Your task to perform on an android device: open app "Spotify" (install if not already installed) and go to login screen Image 0: 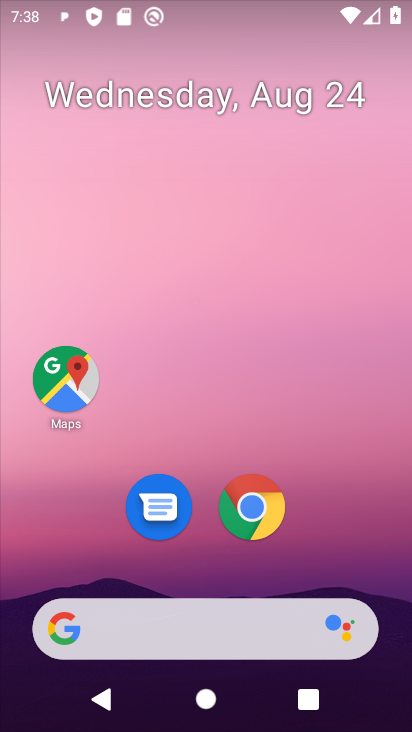
Step 0: drag from (369, 565) to (357, 138)
Your task to perform on an android device: open app "Spotify" (install if not already installed) and go to login screen Image 1: 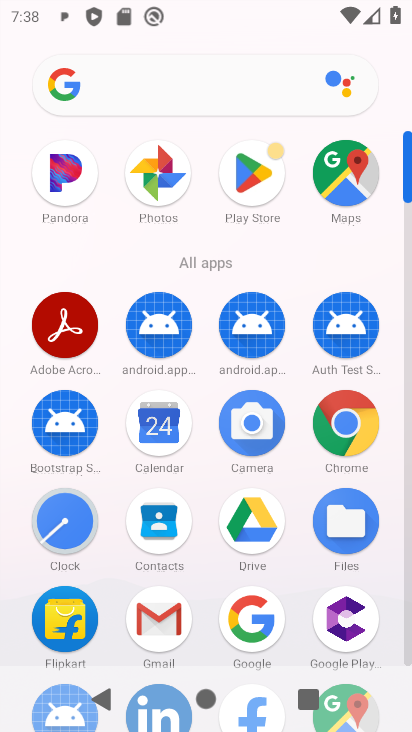
Step 1: click (260, 178)
Your task to perform on an android device: open app "Spotify" (install if not already installed) and go to login screen Image 2: 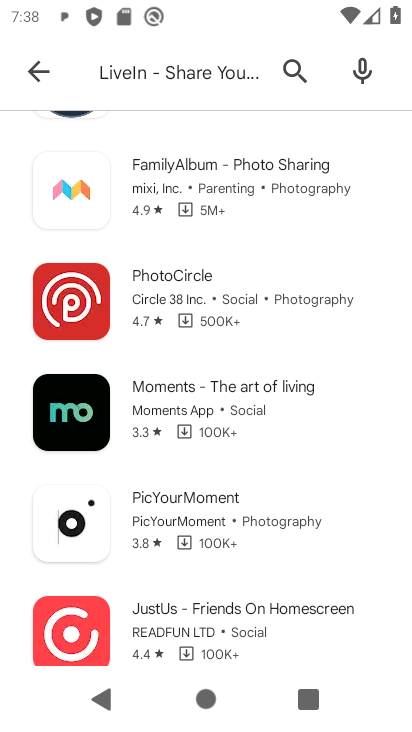
Step 2: press back button
Your task to perform on an android device: open app "Spotify" (install if not already installed) and go to login screen Image 3: 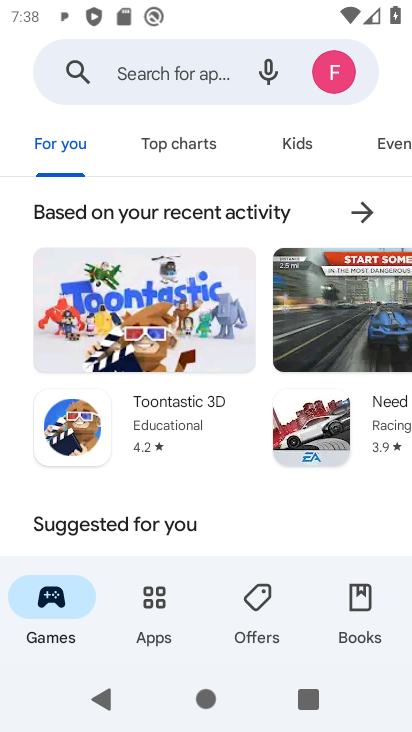
Step 3: click (185, 74)
Your task to perform on an android device: open app "Spotify" (install if not already installed) and go to login screen Image 4: 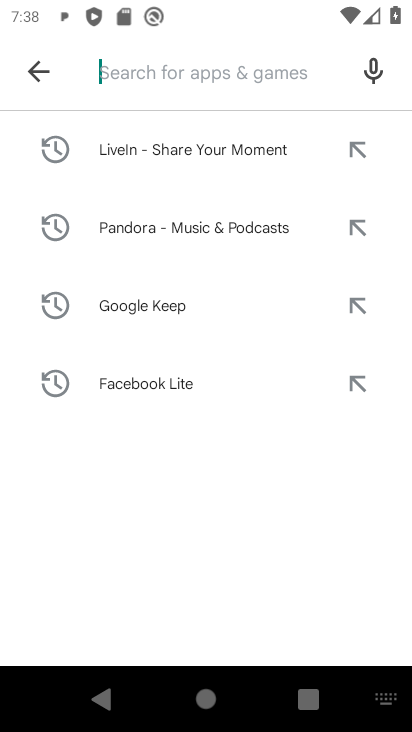
Step 4: type "Spotify"
Your task to perform on an android device: open app "Spotify" (install if not already installed) and go to login screen Image 5: 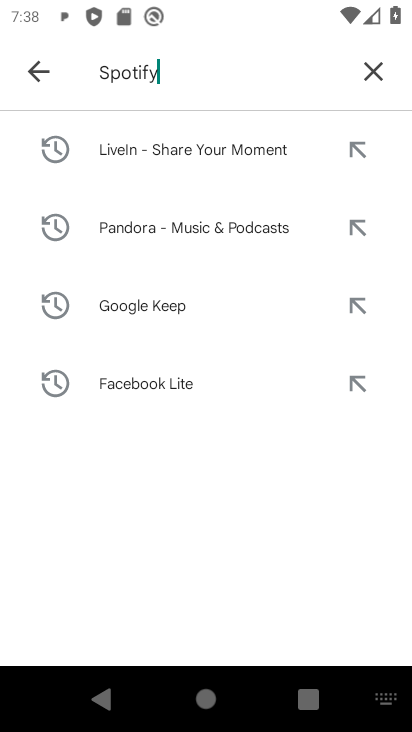
Step 5: press enter
Your task to perform on an android device: open app "Spotify" (install if not already installed) and go to login screen Image 6: 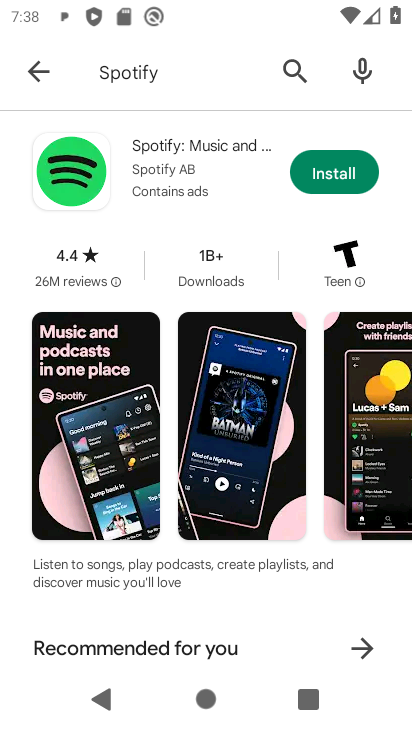
Step 6: click (330, 168)
Your task to perform on an android device: open app "Spotify" (install if not already installed) and go to login screen Image 7: 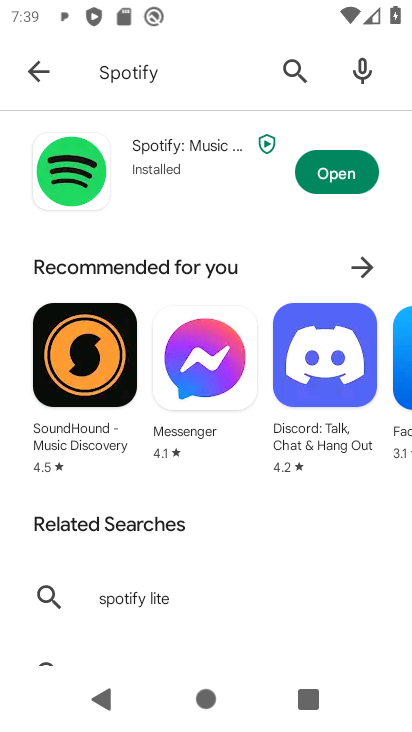
Step 7: click (344, 182)
Your task to perform on an android device: open app "Spotify" (install if not already installed) and go to login screen Image 8: 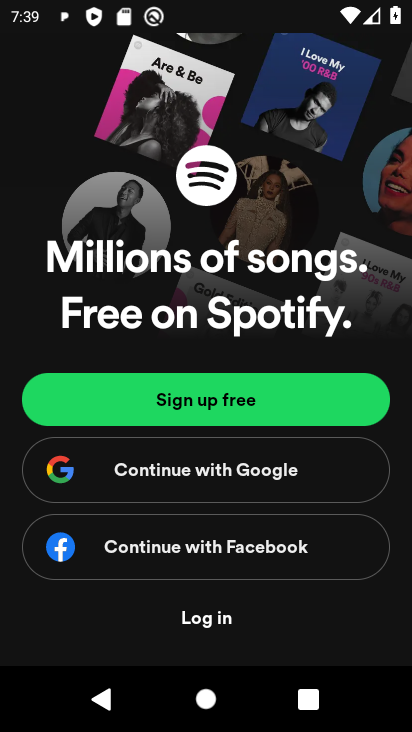
Step 8: task complete